Your task to perform on an android device: set an alarm Image 0: 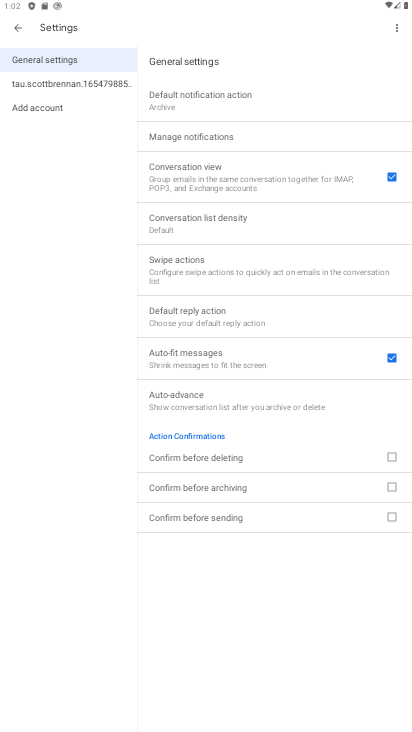
Step 0: press home button
Your task to perform on an android device: set an alarm Image 1: 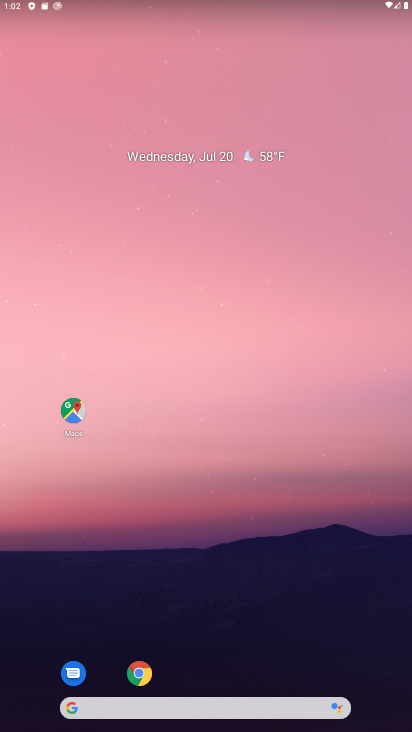
Step 1: drag from (290, 550) to (242, 33)
Your task to perform on an android device: set an alarm Image 2: 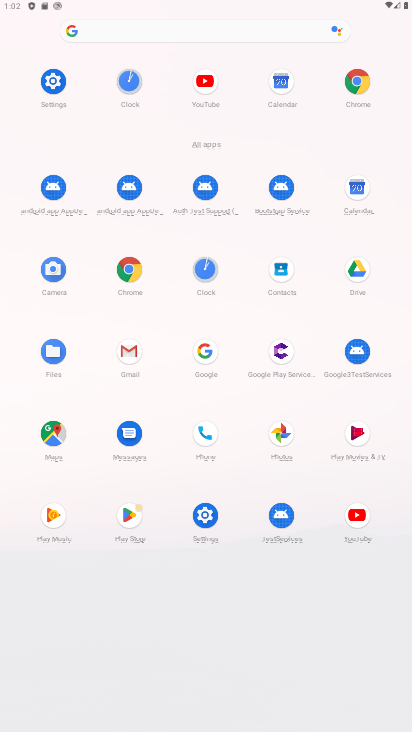
Step 2: click (140, 82)
Your task to perform on an android device: set an alarm Image 3: 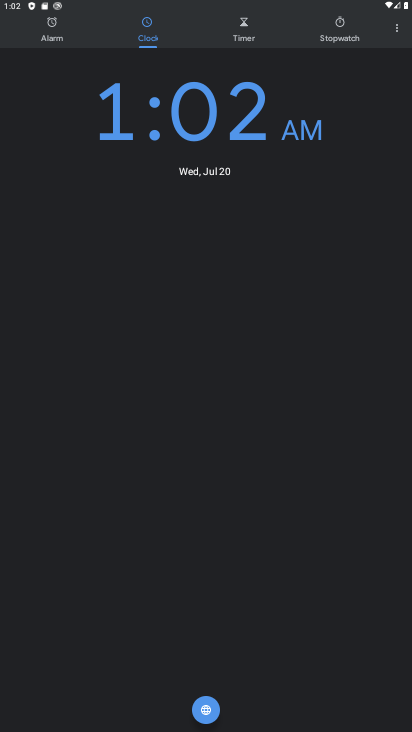
Step 3: click (62, 31)
Your task to perform on an android device: set an alarm Image 4: 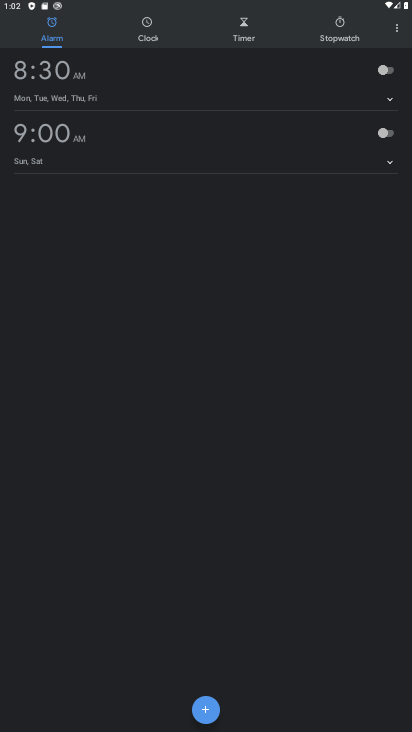
Step 4: click (385, 68)
Your task to perform on an android device: set an alarm Image 5: 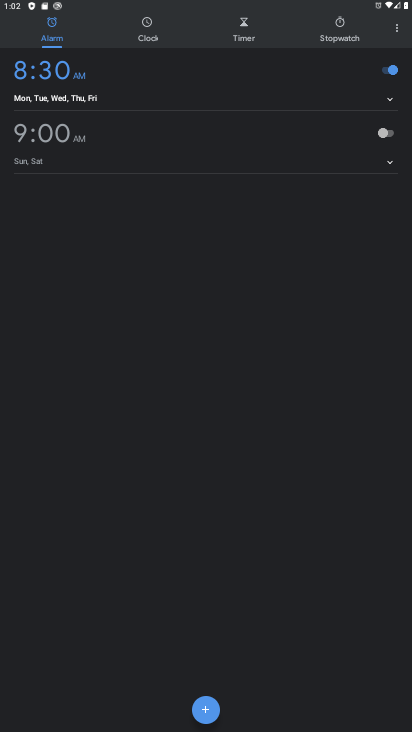
Step 5: task complete